Your task to perform on an android device: change the clock style Image 0: 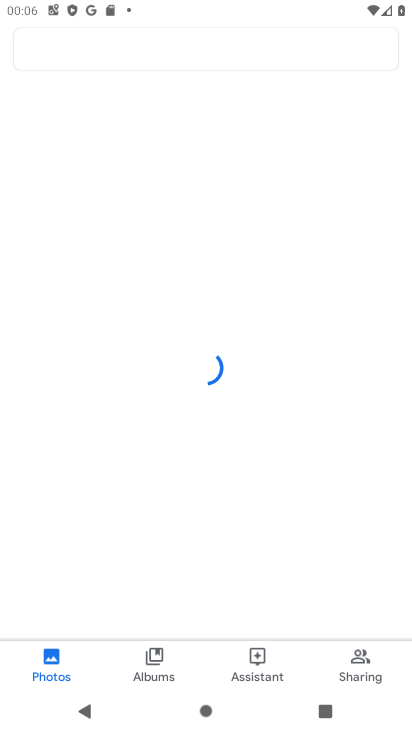
Step 0: press home button
Your task to perform on an android device: change the clock style Image 1: 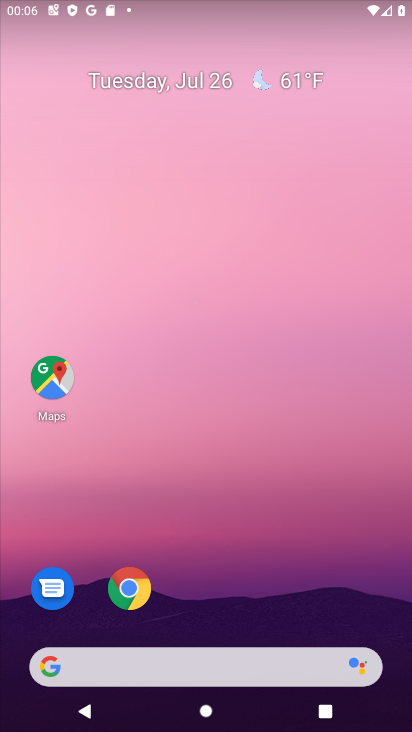
Step 1: drag from (229, 615) to (222, 11)
Your task to perform on an android device: change the clock style Image 2: 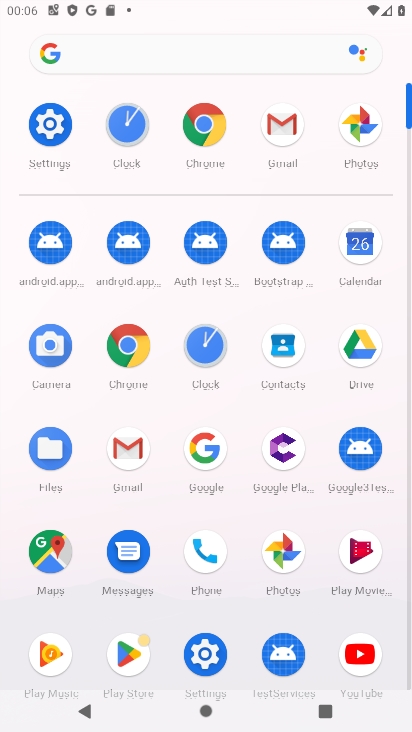
Step 2: click (119, 118)
Your task to perform on an android device: change the clock style Image 3: 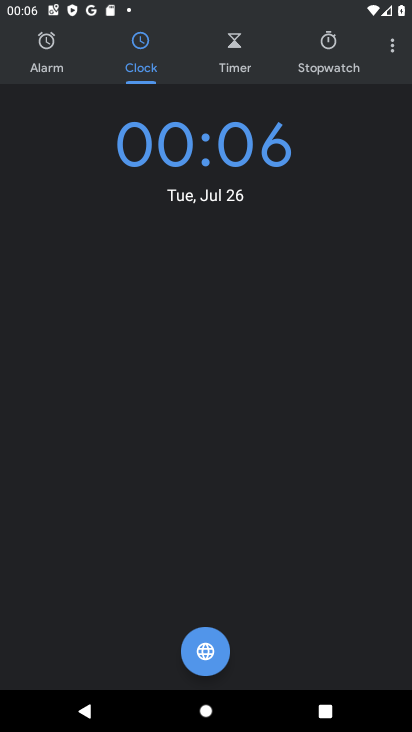
Step 3: click (391, 49)
Your task to perform on an android device: change the clock style Image 4: 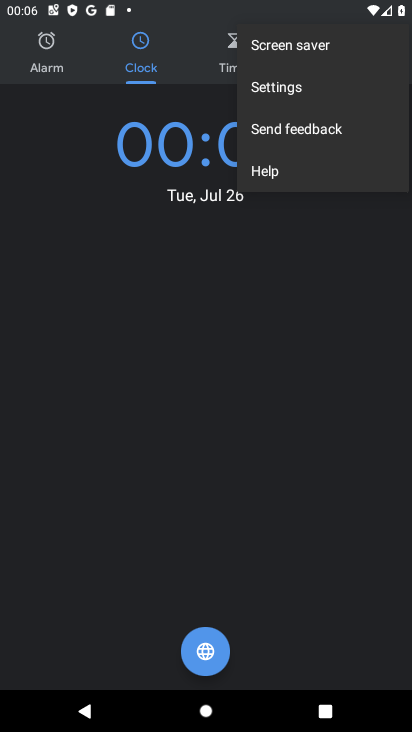
Step 4: click (298, 83)
Your task to perform on an android device: change the clock style Image 5: 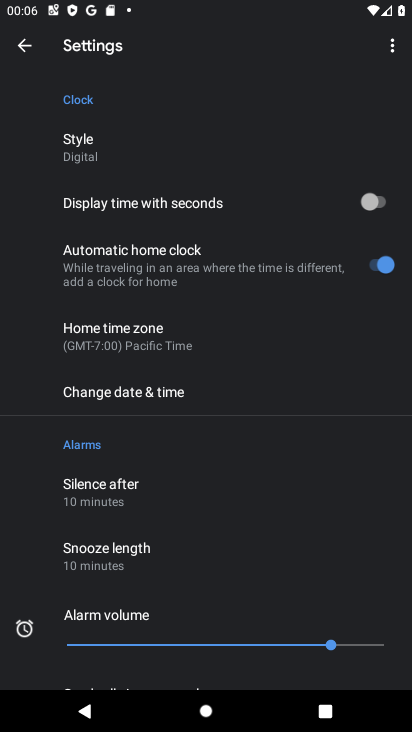
Step 5: click (115, 148)
Your task to perform on an android device: change the clock style Image 6: 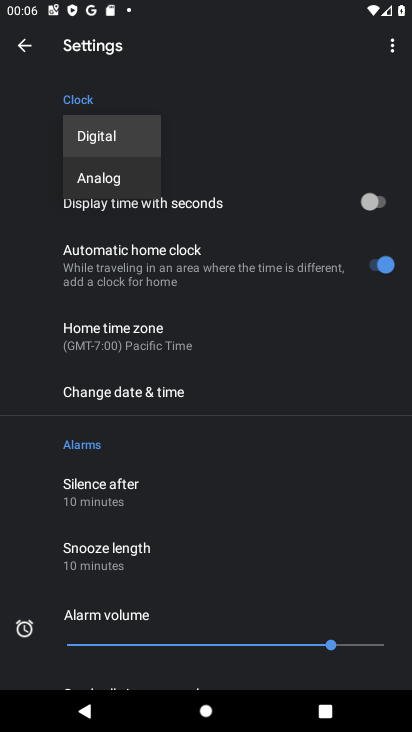
Step 6: click (134, 182)
Your task to perform on an android device: change the clock style Image 7: 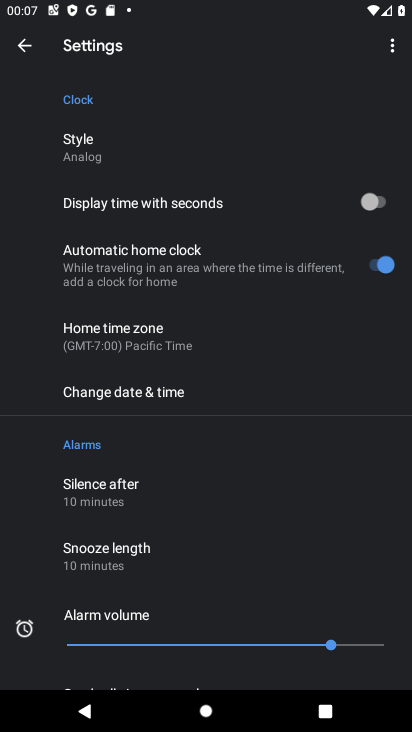
Step 7: task complete